Your task to perform on an android device: open app "eBay: The shopping marketplace" (install if not already installed) Image 0: 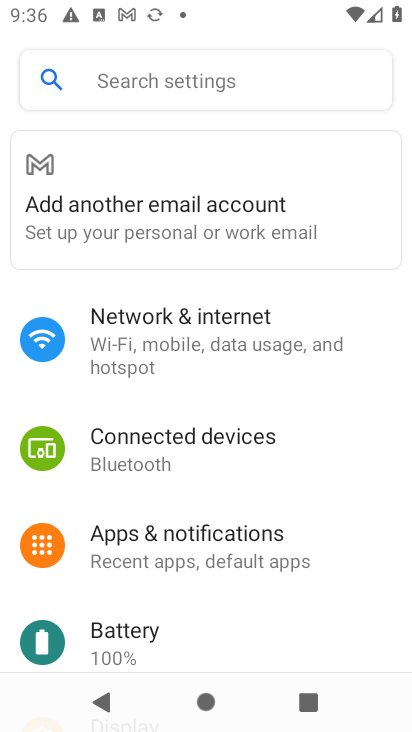
Step 0: press home button
Your task to perform on an android device: open app "eBay: The shopping marketplace" (install if not already installed) Image 1: 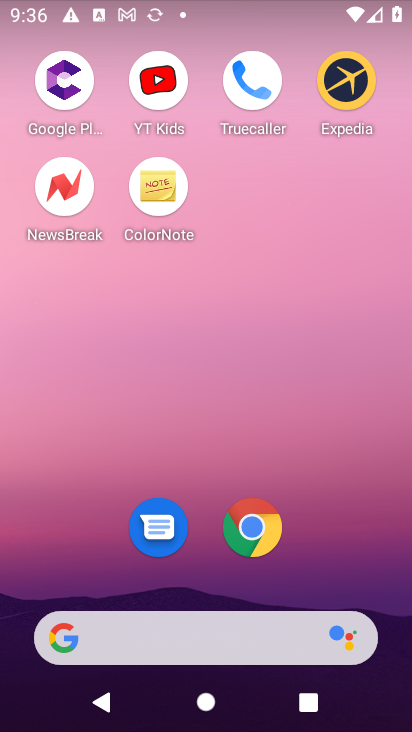
Step 1: drag from (202, 579) to (152, 3)
Your task to perform on an android device: open app "eBay: The shopping marketplace" (install if not already installed) Image 2: 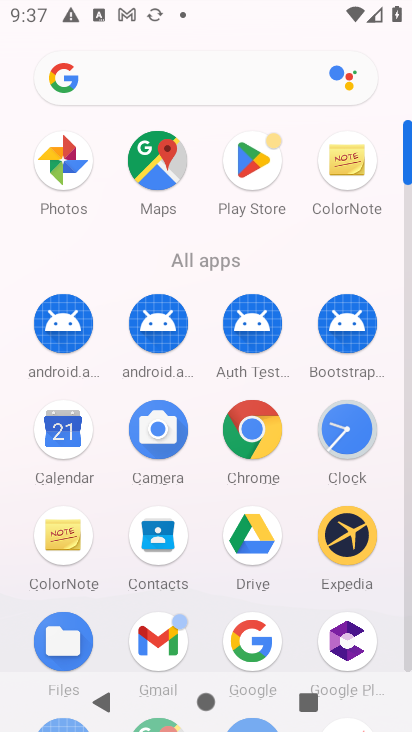
Step 2: click (254, 174)
Your task to perform on an android device: open app "eBay: The shopping marketplace" (install if not already installed) Image 3: 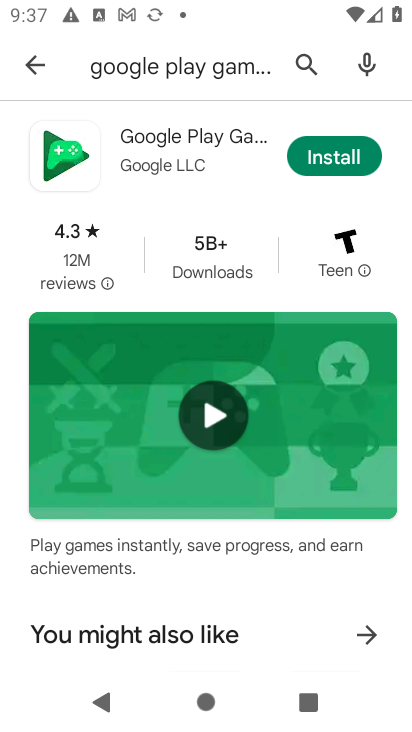
Step 3: click (161, 82)
Your task to perform on an android device: open app "eBay: The shopping marketplace" (install if not already installed) Image 4: 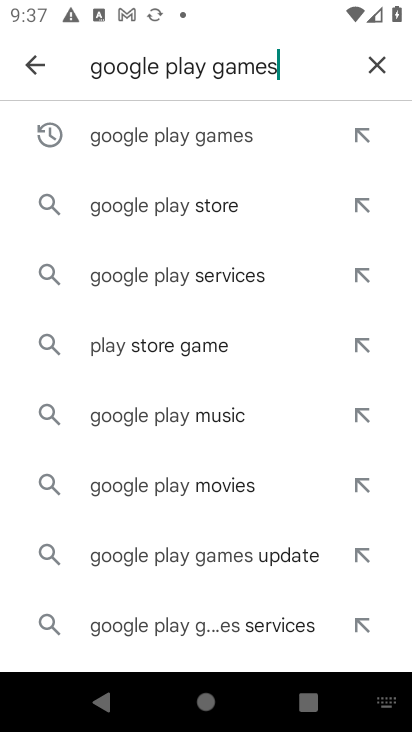
Step 4: click (378, 58)
Your task to perform on an android device: open app "eBay: The shopping marketplace" (install if not already installed) Image 5: 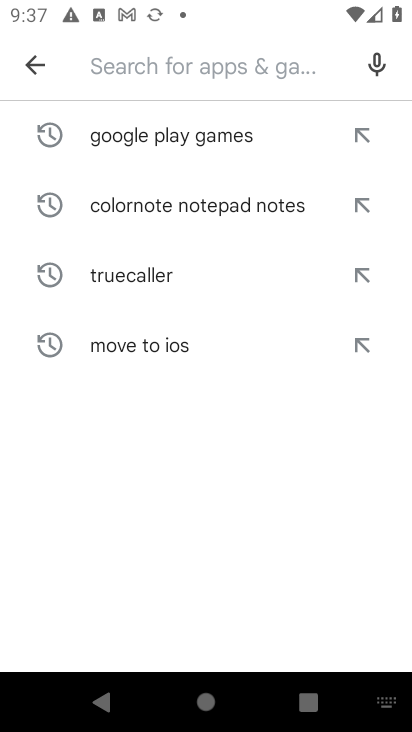
Step 5: type "eBay"
Your task to perform on an android device: open app "eBay: The shopping marketplace" (install if not already installed) Image 6: 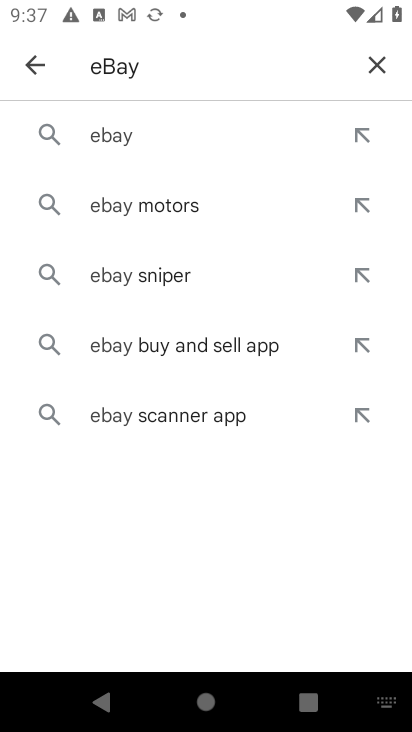
Step 6: click (140, 140)
Your task to perform on an android device: open app "eBay: The shopping marketplace" (install if not already installed) Image 7: 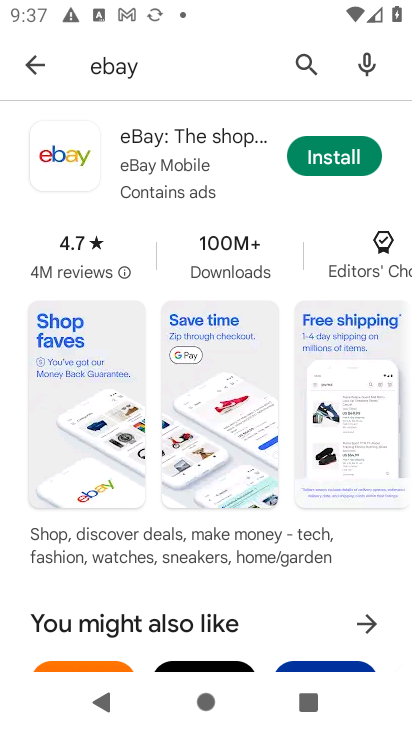
Step 7: click (348, 166)
Your task to perform on an android device: open app "eBay: The shopping marketplace" (install if not already installed) Image 8: 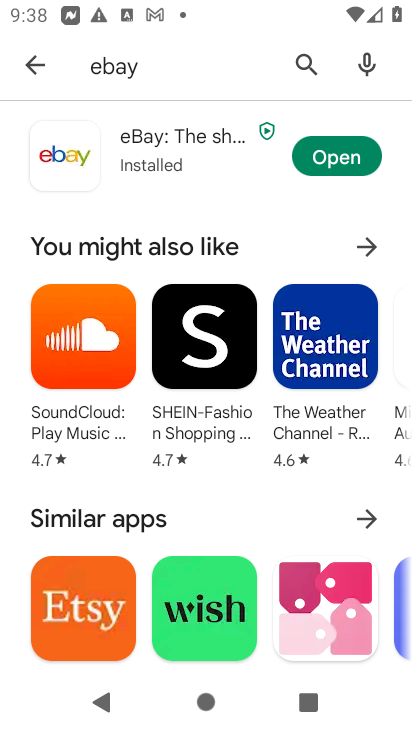
Step 8: click (347, 154)
Your task to perform on an android device: open app "eBay: The shopping marketplace" (install if not already installed) Image 9: 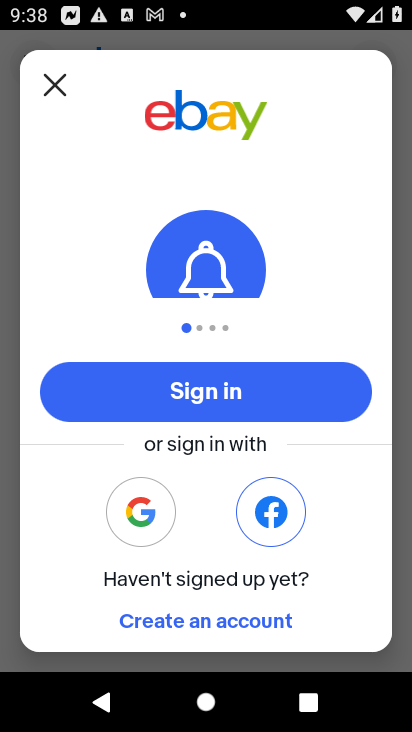
Step 9: task complete